Your task to perform on an android device: turn on wifi Image 0: 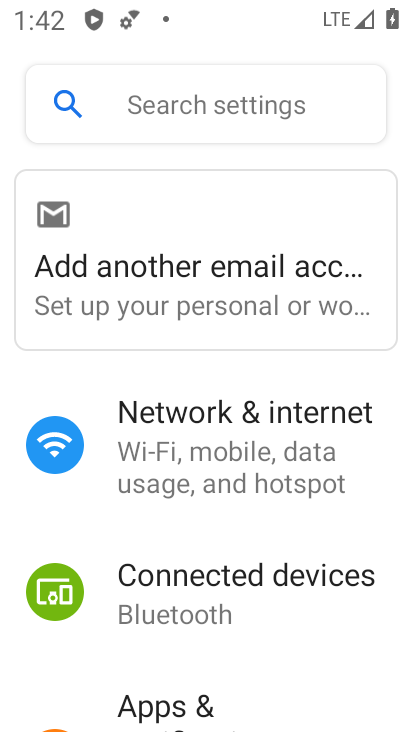
Step 0: click (187, 450)
Your task to perform on an android device: turn on wifi Image 1: 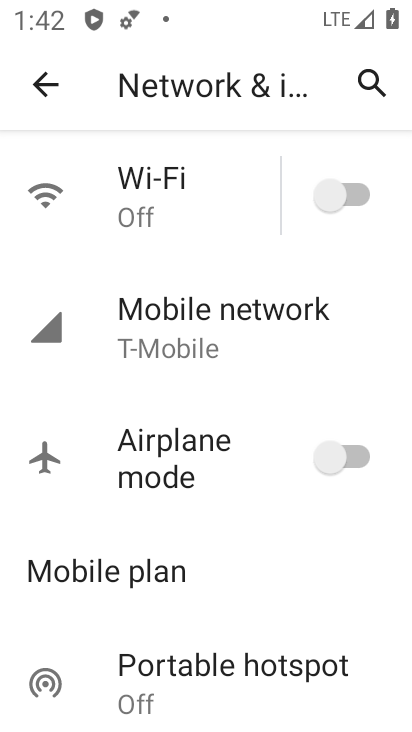
Step 1: click (357, 190)
Your task to perform on an android device: turn on wifi Image 2: 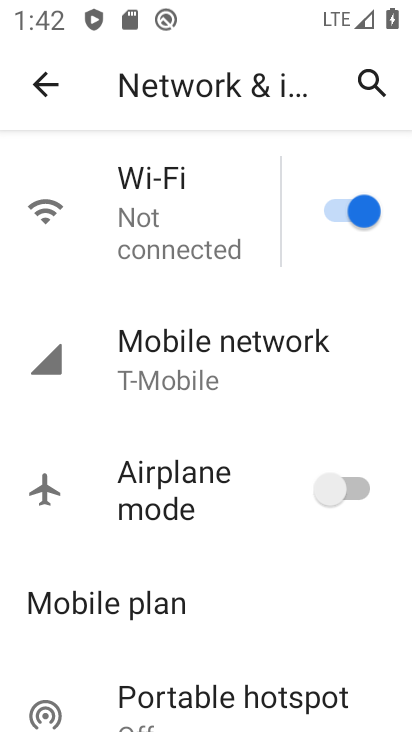
Step 2: task complete